Your task to perform on an android device: turn off sleep mode Image 0: 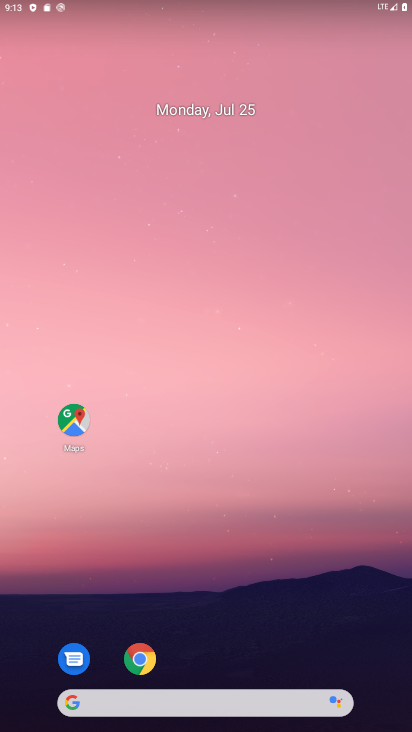
Step 0: drag from (192, 659) to (341, 0)
Your task to perform on an android device: turn off sleep mode Image 1: 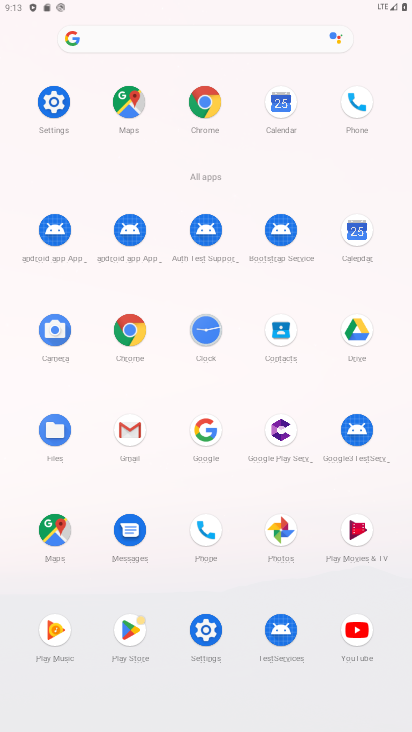
Step 1: click (201, 662)
Your task to perform on an android device: turn off sleep mode Image 2: 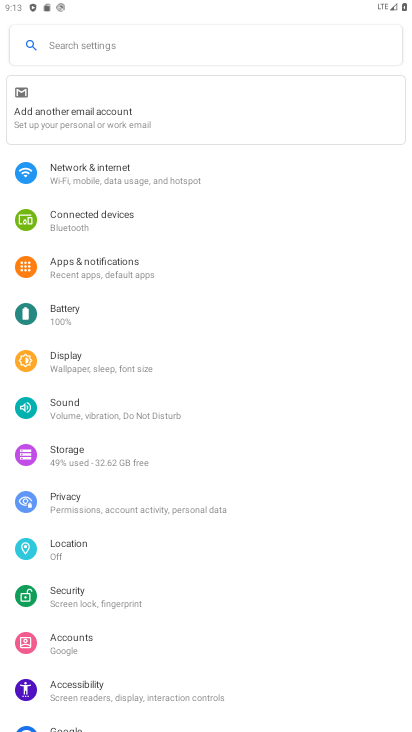
Step 2: click (223, 46)
Your task to perform on an android device: turn off sleep mode Image 3: 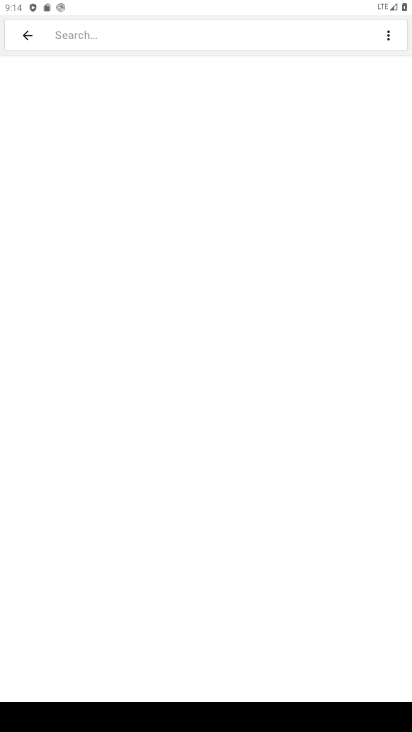
Step 3: type "sleep mode"
Your task to perform on an android device: turn off sleep mode Image 4: 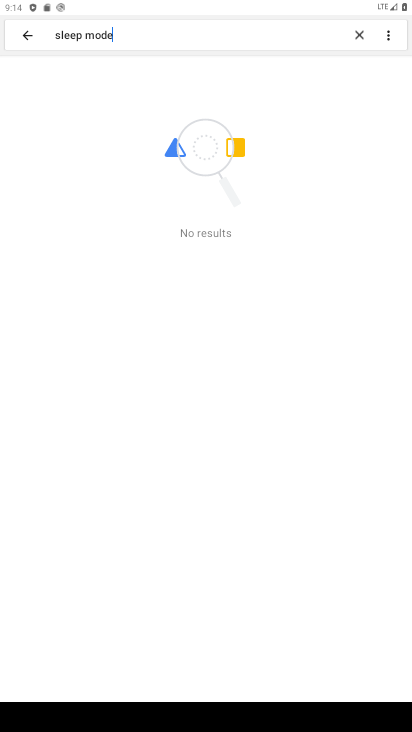
Step 4: click (168, 390)
Your task to perform on an android device: turn off sleep mode Image 5: 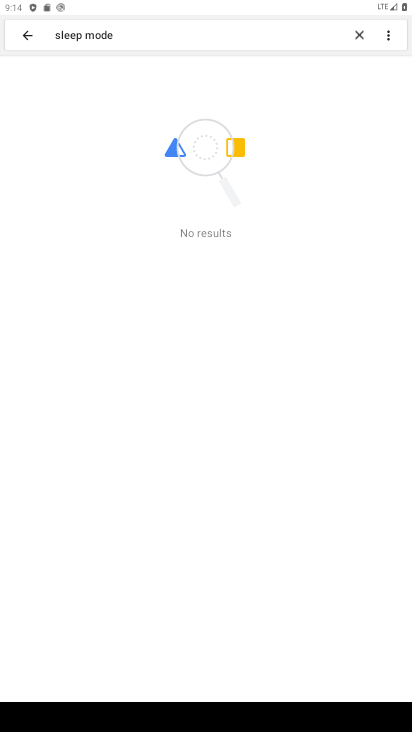
Step 5: task complete